Your task to perform on an android device: toggle translation in the chrome app Image 0: 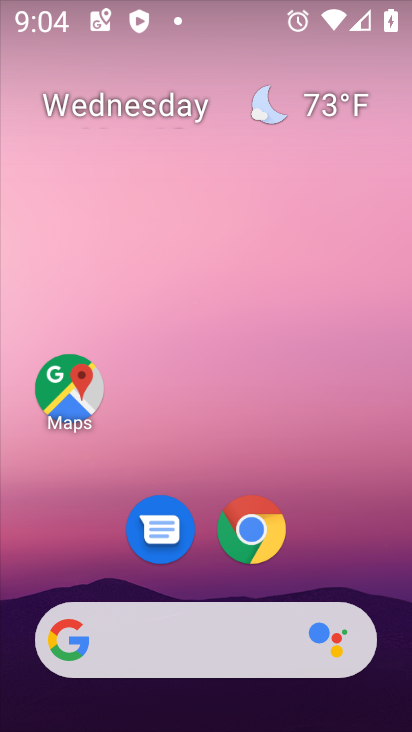
Step 0: drag from (326, 560) to (325, 186)
Your task to perform on an android device: toggle translation in the chrome app Image 1: 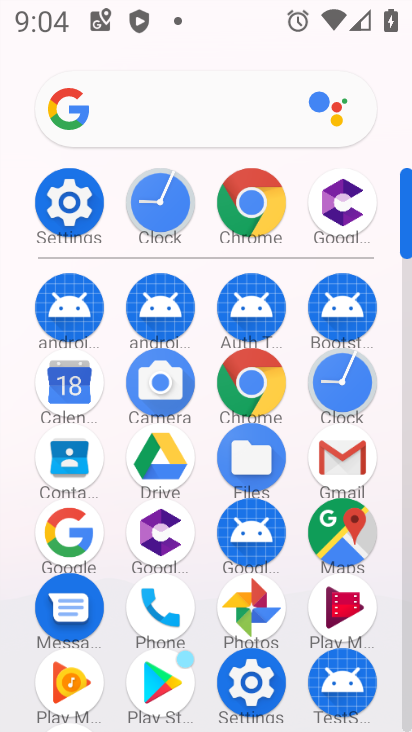
Step 1: click (267, 387)
Your task to perform on an android device: toggle translation in the chrome app Image 2: 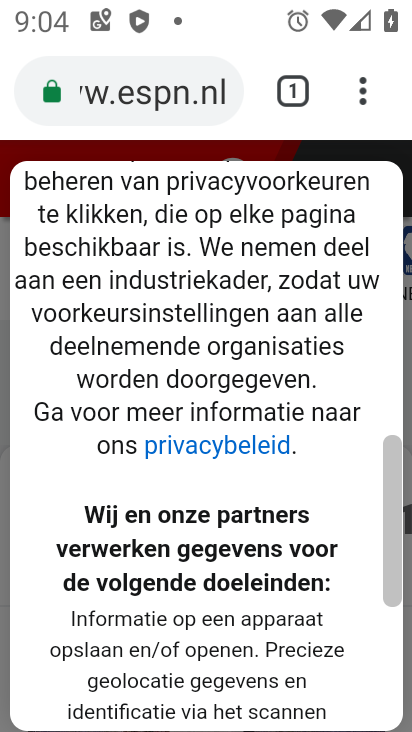
Step 2: click (366, 103)
Your task to perform on an android device: toggle translation in the chrome app Image 3: 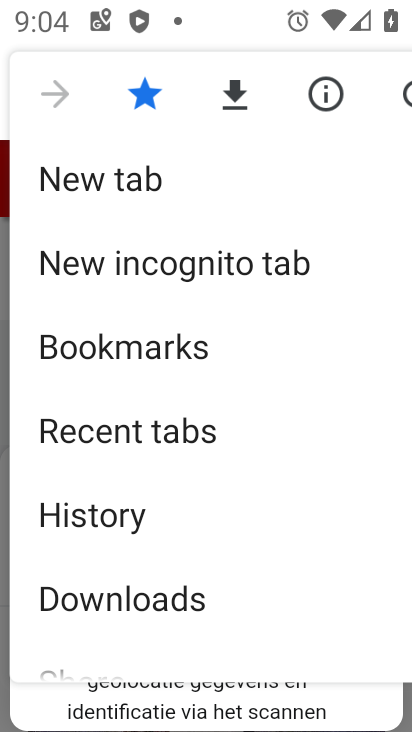
Step 3: drag from (322, 501) to (335, 370)
Your task to perform on an android device: toggle translation in the chrome app Image 4: 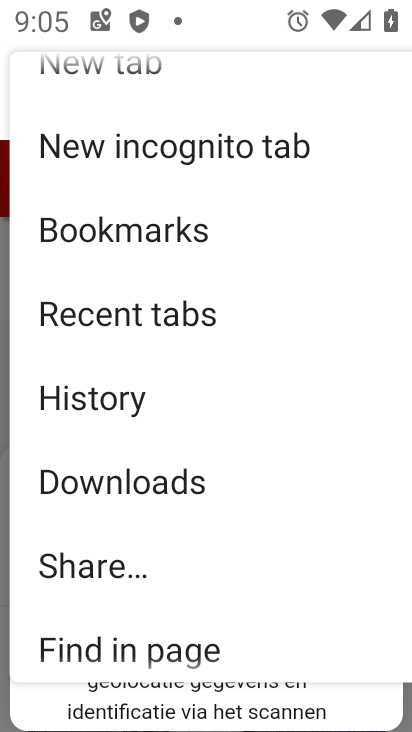
Step 4: drag from (338, 549) to (342, 387)
Your task to perform on an android device: toggle translation in the chrome app Image 5: 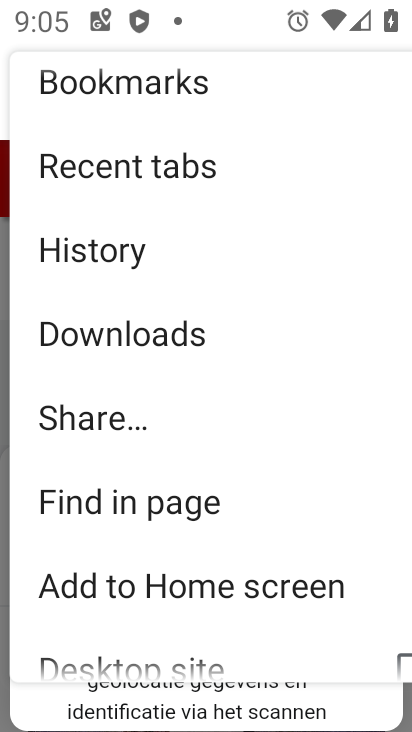
Step 5: drag from (329, 614) to (326, 380)
Your task to perform on an android device: toggle translation in the chrome app Image 6: 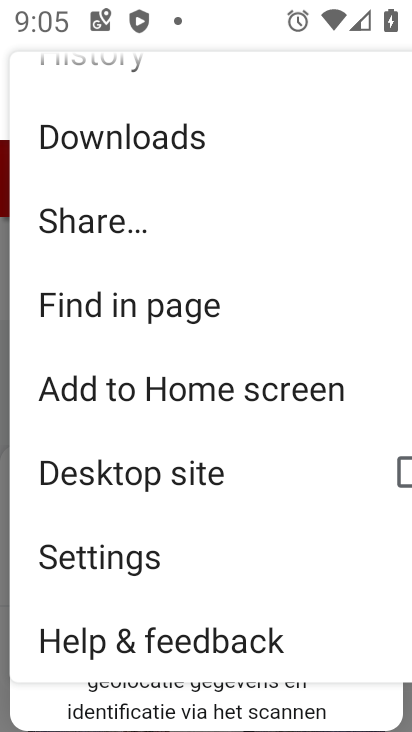
Step 6: click (162, 568)
Your task to perform on an android device: toggle translation in the chrome app Image 7: 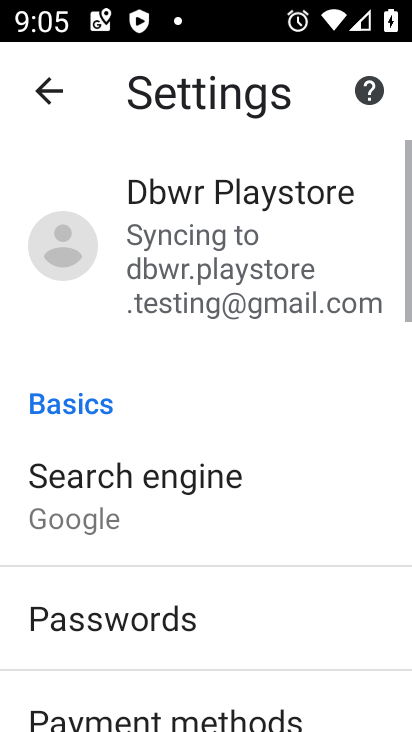
Step 7: drag from (322, 637) to (326, 496)
Your task to perform on an android device: toggle translation in the chrome app Image 8: 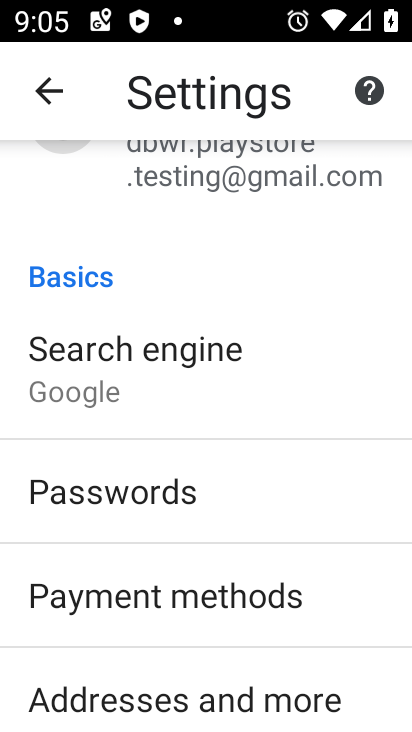
Step 8: drag from (341, 631) to (339, 500)
Your task to perform on an android device: toggle translation in the chrome app Image 9: 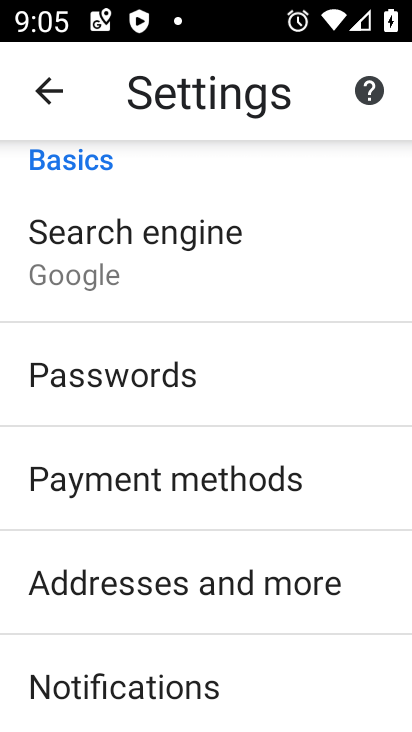
Step 9: drag from (326, 677) to (338, 550)
Your task to perform on an android device: toggle translation in the chrome app Image 10: 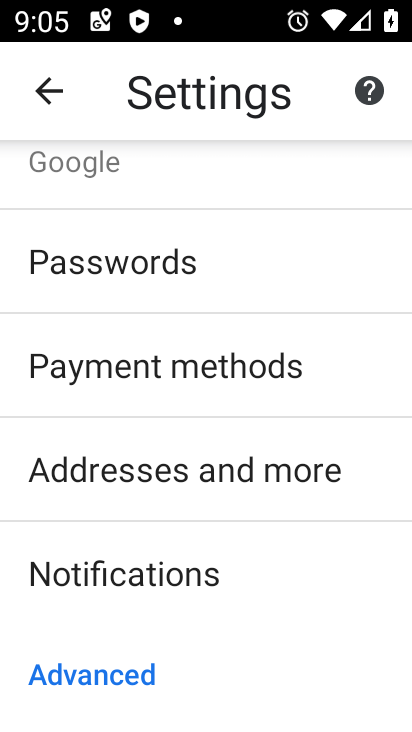
Step 10: drag from (336, 673) to (346, 546)
Your task to perform on an android device: toggle translation in the chrome app Image 11: 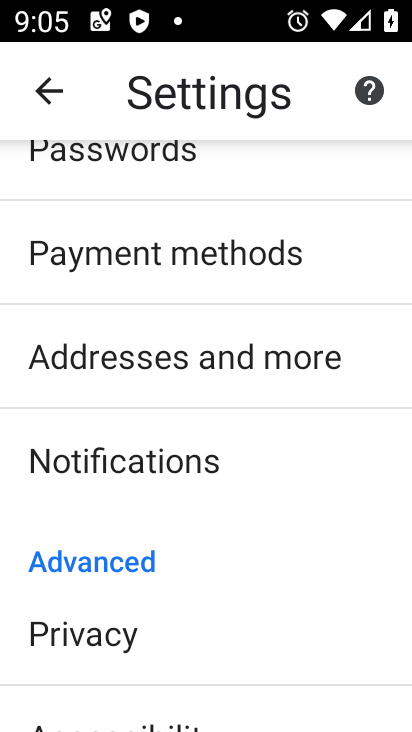
Step 11: drag from (330, 666) to (321, 583)
Your task to perform on an android device: toggle translation in the chrome app Image 12: 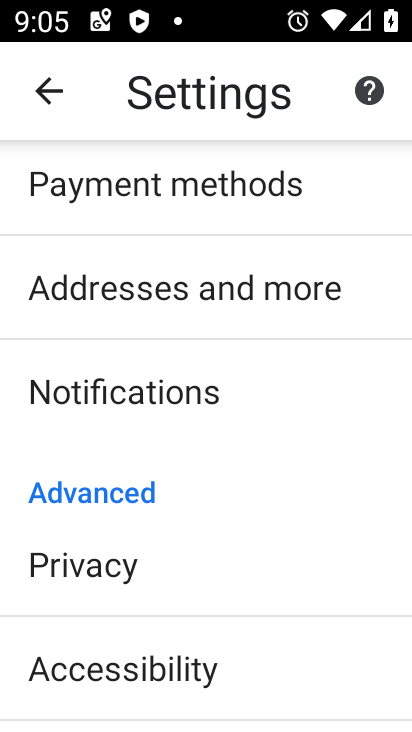
Step 12: drag from (323, 672) to (321, 572)
Your task to perform on an android device: toggle translation in the chrome app Image 13: 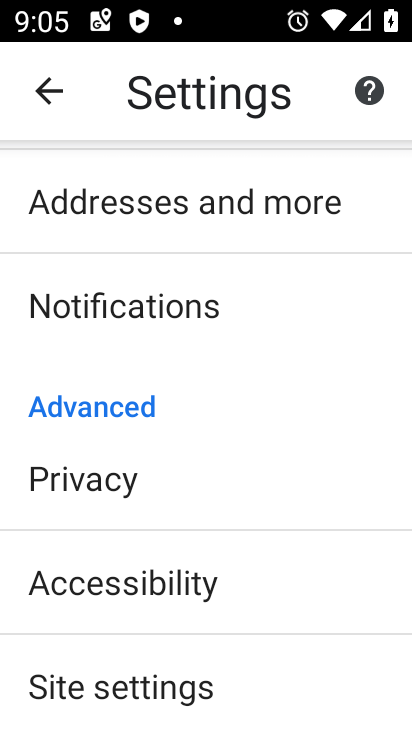
Step 13: drag from (316, 682) to (318, 596)
Your task to perform on an android device: toggle translation in the chrome app Image 14: 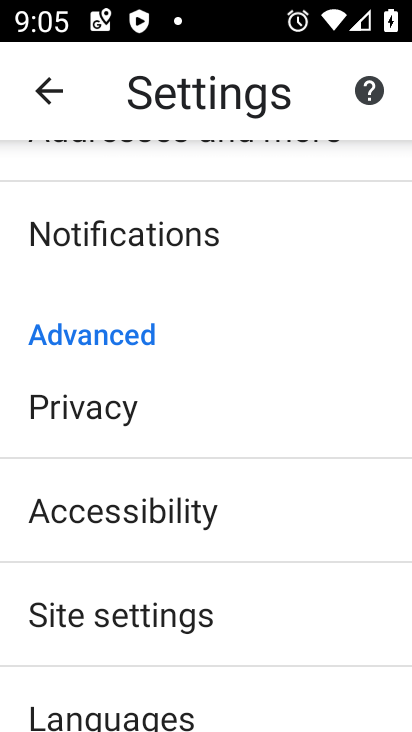
Step 14: drag from (360, 636) to (363, 404)
Your task to perform on an android device: toggle translation in the chrome app Image 15: 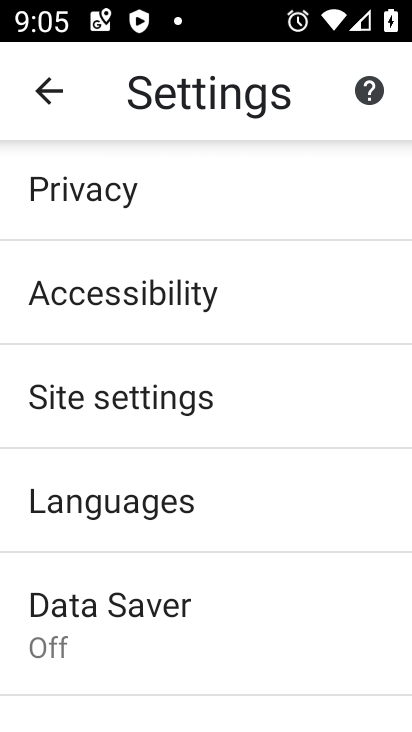
Step 15: drag from (321, 608) to (322, 448)
Your task to perform on an android device: toggle translation in the chrome app Image 16: 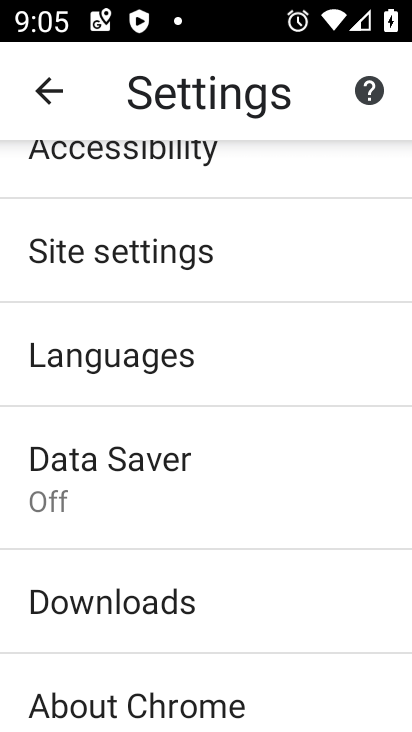
Step 16: click (209, 351)
Your task to perform on an android device: toggle translation in the chrome app Image 17: 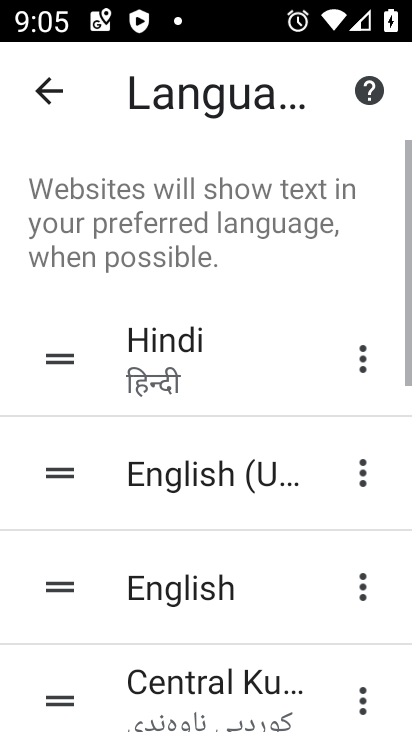
Step 17: drag from (271, 605) to (294, 386)
Your task to perform on an android device: toggle translation in the chrome app Image 18: 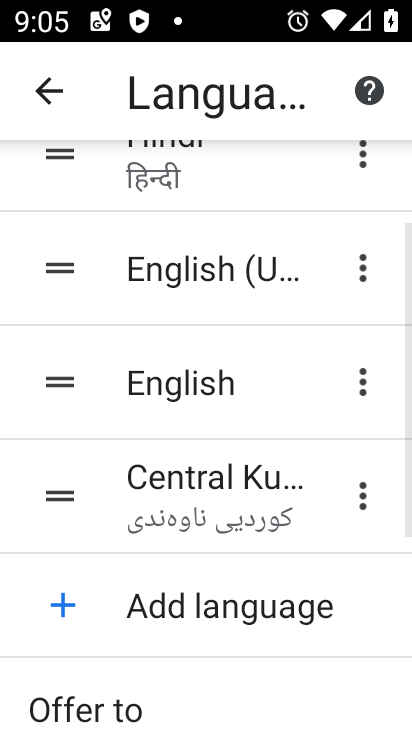
Step 18: drag from (262, 659) to (291, 470)
Your task to perform on an android device: toggle translation in the chrome app Image 19: 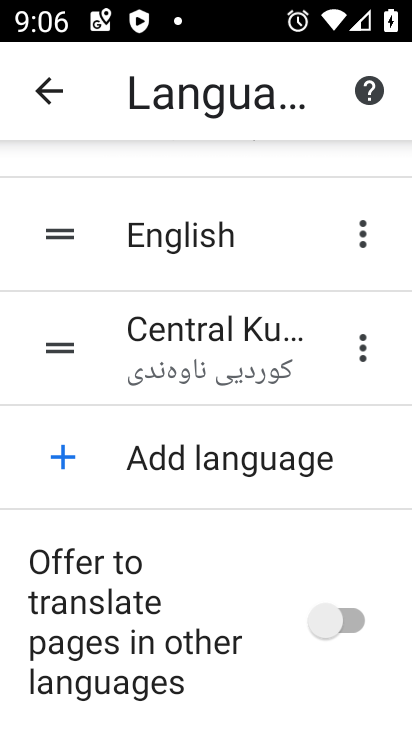
Step 19: click (333, 633)
Your task to perform on an android device: toggle translation in the chrome app Image 20: 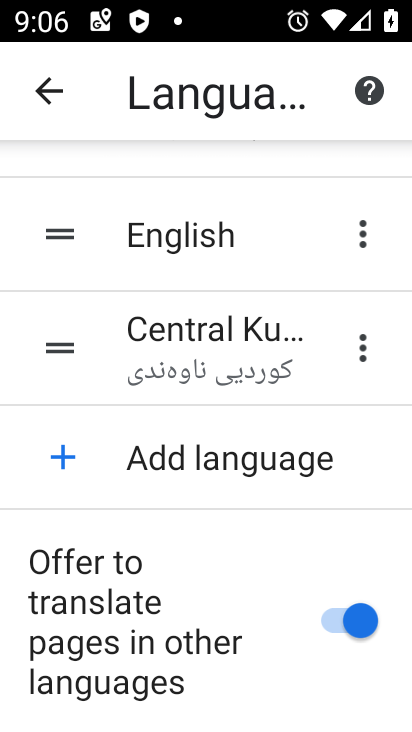
Step 20: task complete